Your task to perform on an android device: remove spam from my inbox in the gmail app Image 0: 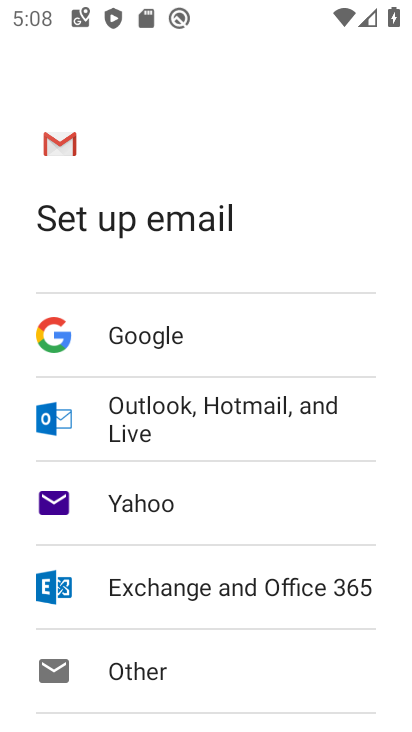
Step 0: press home button
Your task to perform on an android device: remove spam from my inbox in the gmail app Image 1: 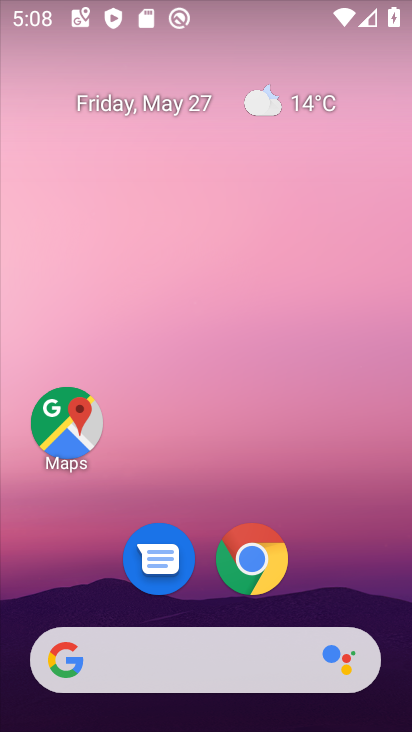
Step 1: drag from (315, 581) to (326, 131)
Your task to perform on an android device: remove spam from my inbox in the gmail app Image 2: 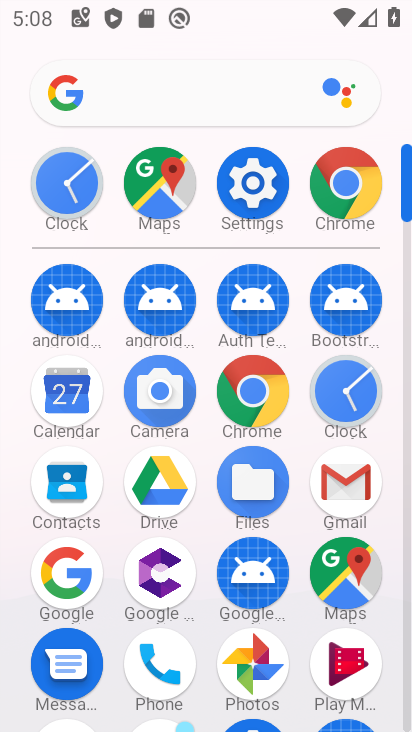
Step 2: click (353, 483)
Your task to perform on an android device: remove spam from my inbox in the gmail app Image 3: 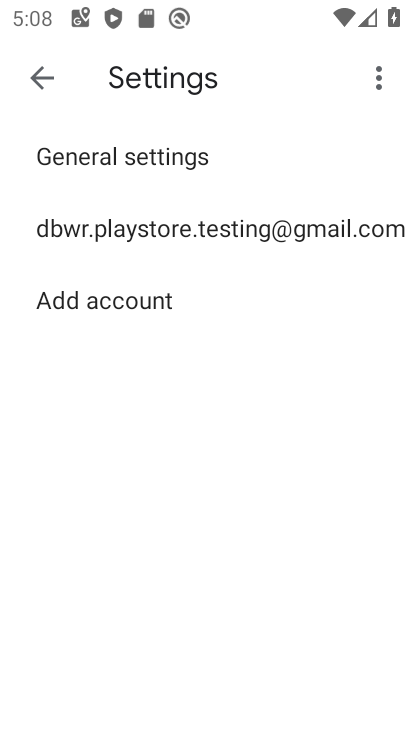
Step 3: click (150, 225)
Your task to perform on an android device: remove spam from my inbox in the gmail app Image 4: 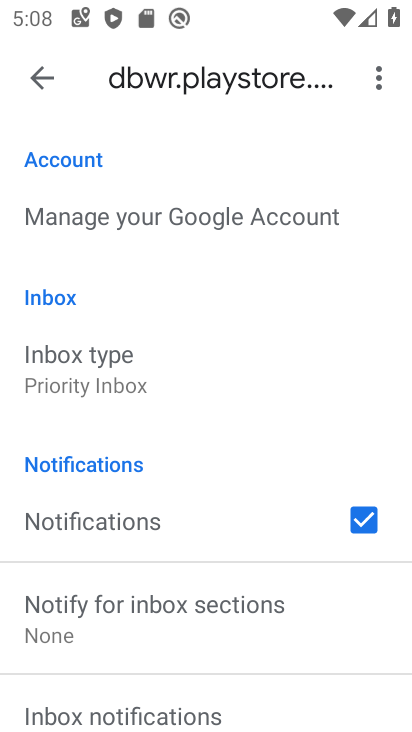
Step 4: click (43, 79)
Your task to perform on an android device: remove spam from my inbox in the gmail app Image 5: 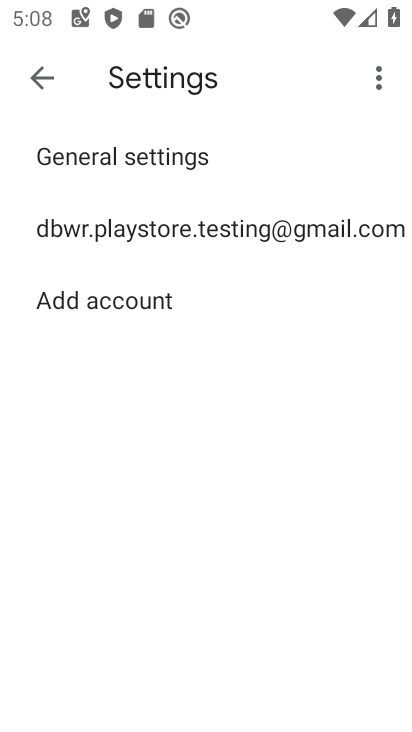
Step 5: click (43, 79)
Your task to perform on an android device: remove spam from my inbox in the gmail app Image 6: 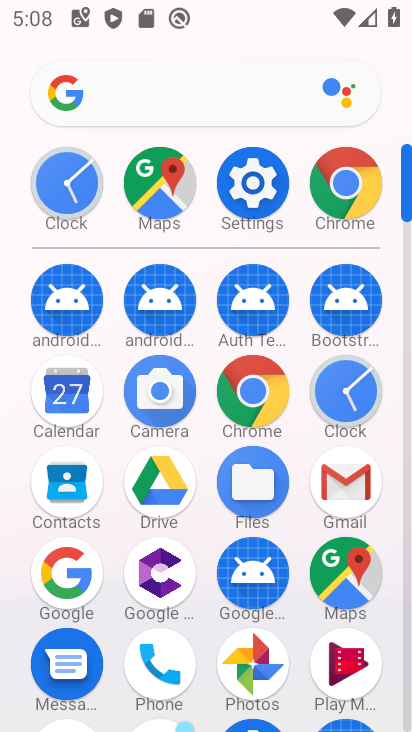
Step 6: click (328, 474)
Your task to perform on an android device: remove spam from my inbox in the gmail app Image 7: 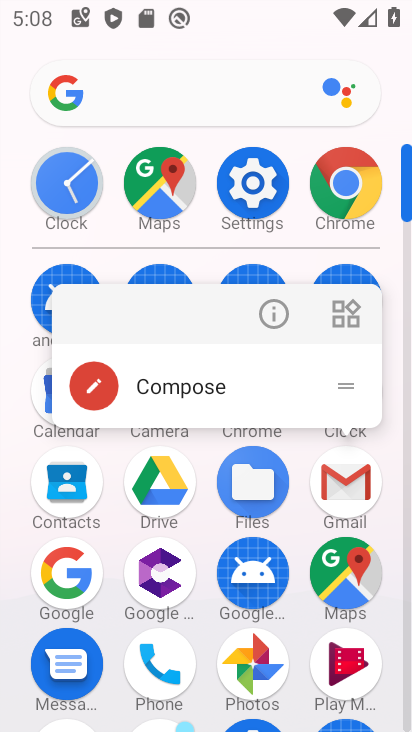
Step 7: click (348, 467)
Your task to perform on an android device: remove spam from my inbox in the gmail app Image 8: 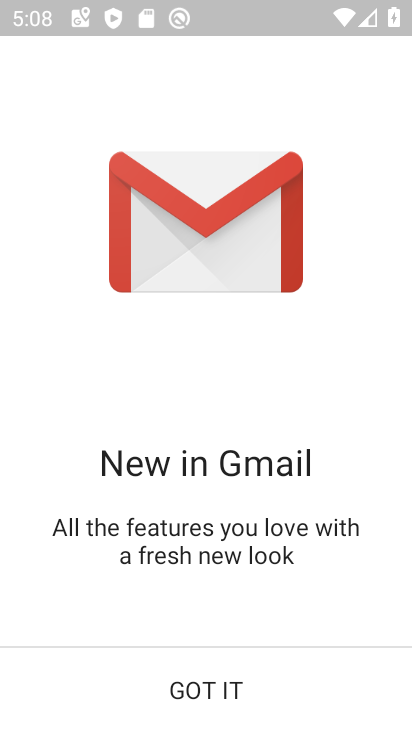
Step 8: click (173, 679)
Your task to perform on an android device: remove spam from my inbox in the gmail app Image 9: 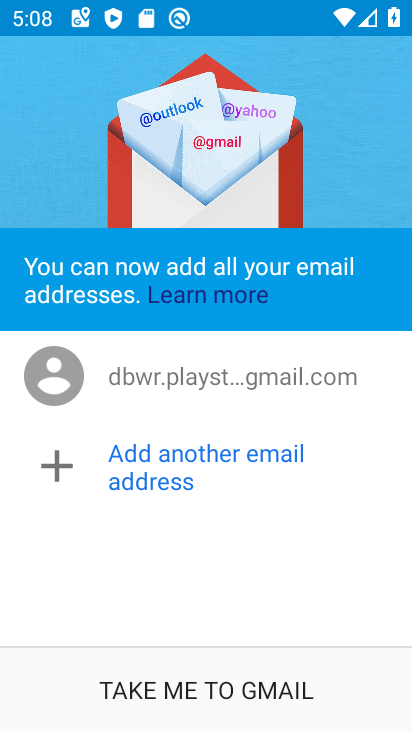
Step 9: click (173, 679)
Your task to perform on an android device: remove spam from my inbox in the gmail app Image 10: 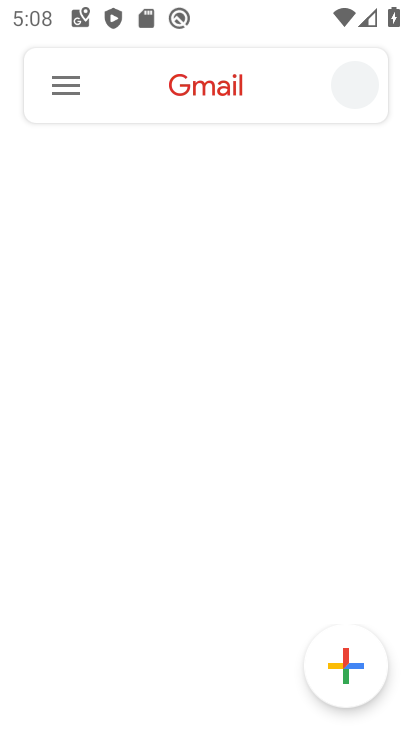
Step 10: click (173, 679)
Your task to perform on an android device: remove spam from my inbox in the gmail app Image 11: 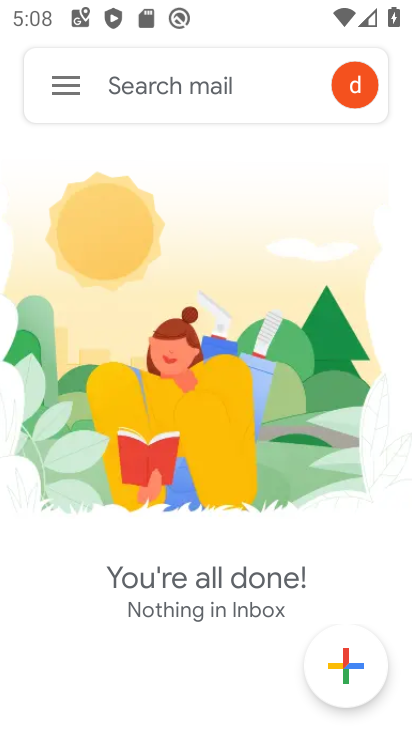
Step 11: click (77, 85)
Your task to perform on an android device: remove spam from my inbox in the gmail app Image 12: 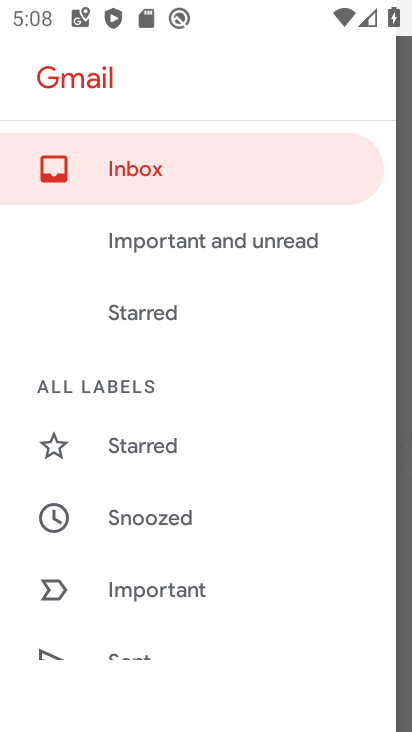
Step 12: drag from (75, 623) to (79, 402)
Your task to perform on an android device: remove spam from my inbox in the gmail app Image 13: 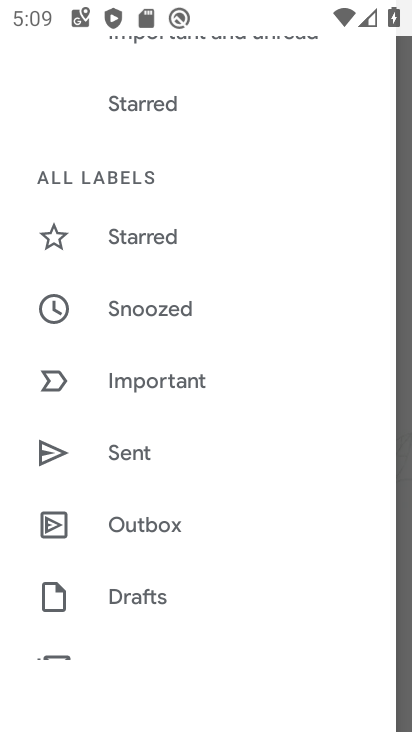
Step 13: click (386, 152)
Your task to perform on an android device: remove spam from my inbox in the gmail app Image 14: 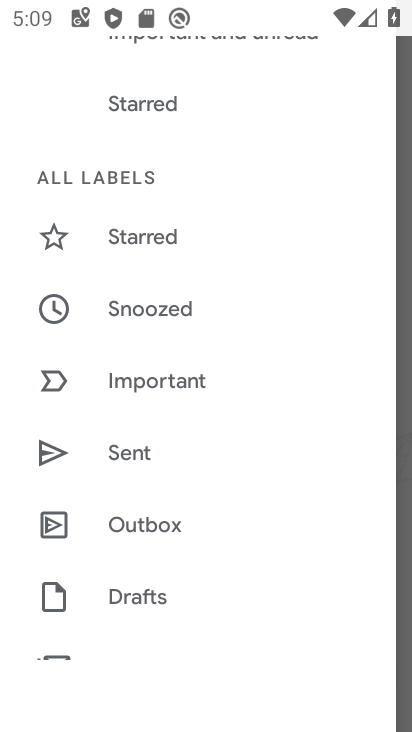
Step 14: drag from (254, 418) to (253, 112)
Your task to perform on an android device: remove spam from my inbox in the gmail app Image 15: 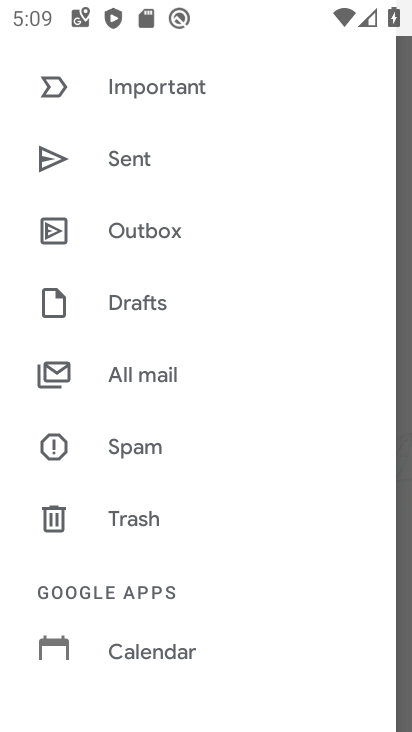
Step 15: click (132, 452)
Your task to perform on an android device: remove spam from my inbox in the gmail app Image 16: 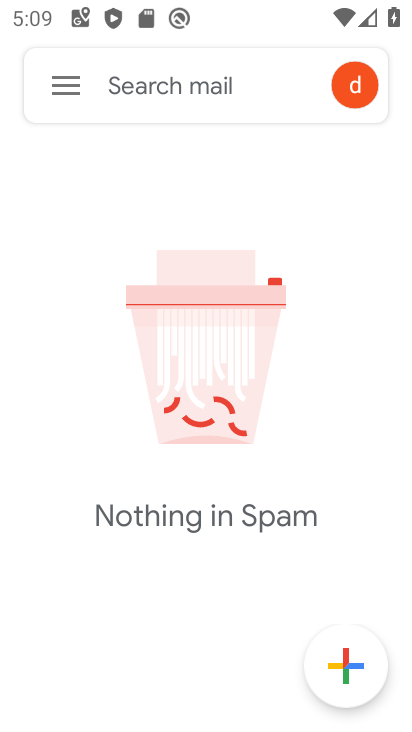
Step 16: task complete